Your task to perform on an android device: Open accessibility settings Image 0: 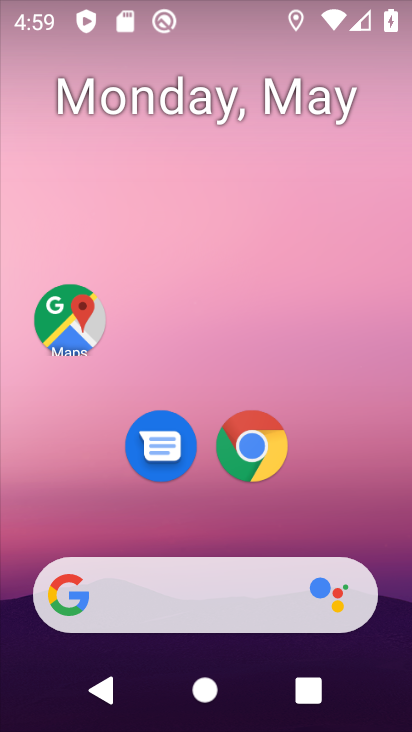
Step 0: drag from (324, 496) to (243, 58)
Your task to perform on an android device: Open accessibility settings Image 1: 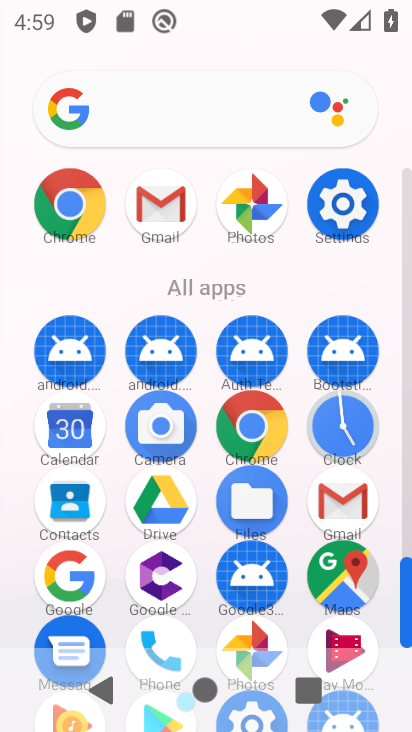
Step 1: click (347, 212)
Your task to perform on an android device: Open accessibility settings Image 2: 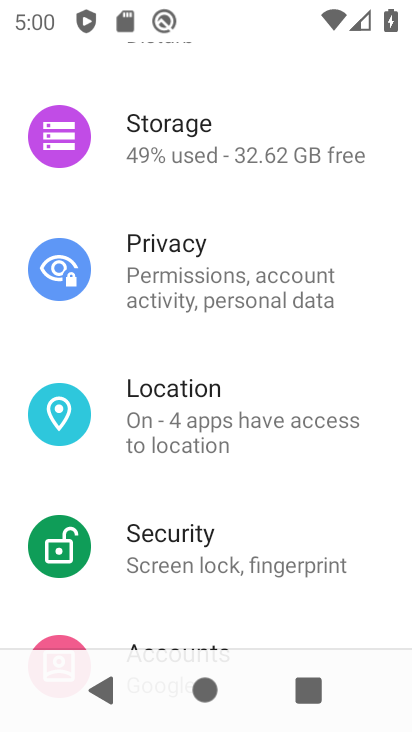
Step 2: drag from (262, 507) to (203, 175)
Your task to perform on an android device: Open accessibility settings Image 3: 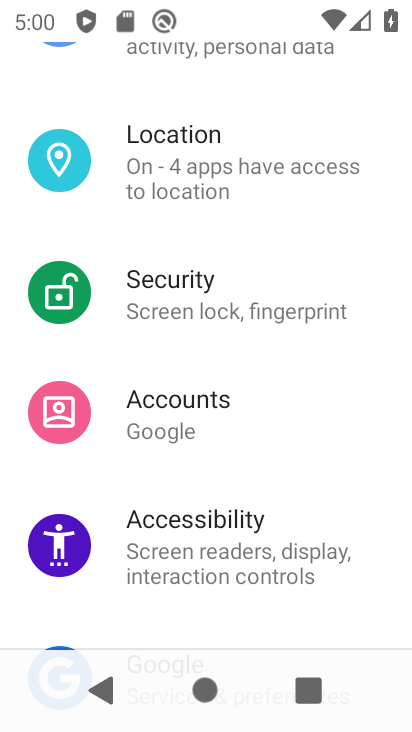
Step 3: click (207, 518)
Your task to perform on an android device: Open accessibility settings Image 4: 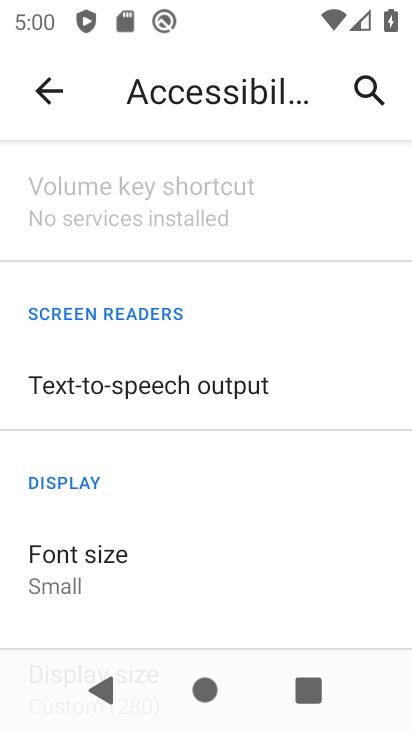
Step 4: task complete